Your task to perform on an android device: Open settings Image 0: 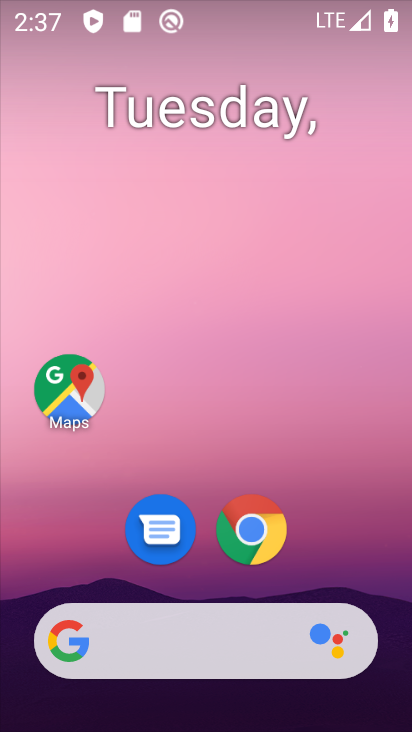
Step 0: drag from (399, 617) to (302, 151)
Your task to perform on an android device: Open settings Image 1: 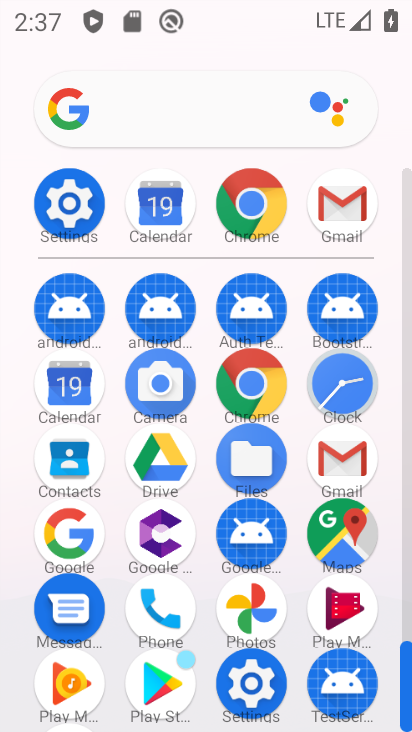
Step 1: click (41, 224)
Your task to perform on an android device: Open settings Image 2: 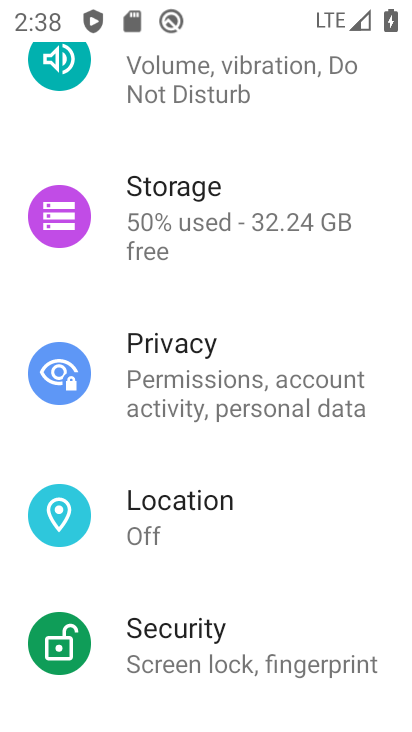
Step 2: task complete